Your task to perform on an android device: turn vacation reply on in the gmail app Image 0: 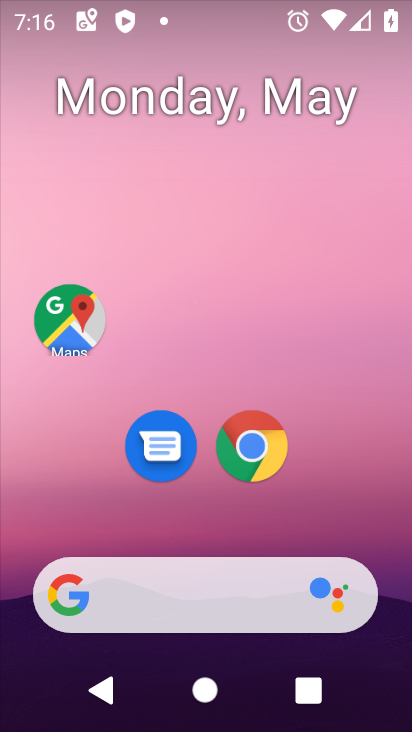
Step 0: drag from (345, 494) to (252, 169)
Your task to perform on an android device: turn vacation reply on in the gmail app Image 1: 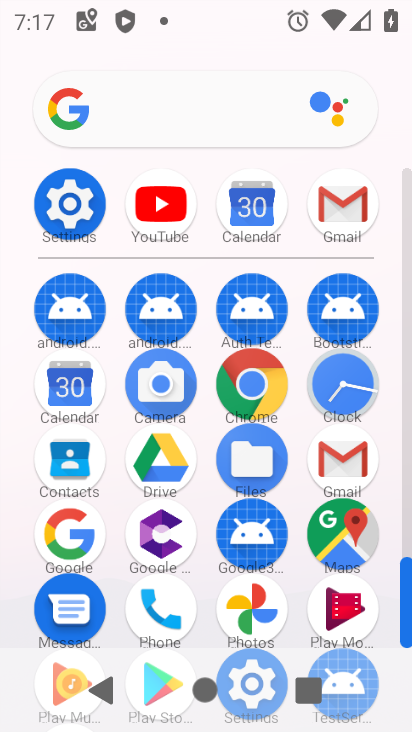
Step 1: click (325, 208)
Your task to perform on an android device: turn vacation reply on in the gmail app Image 2: 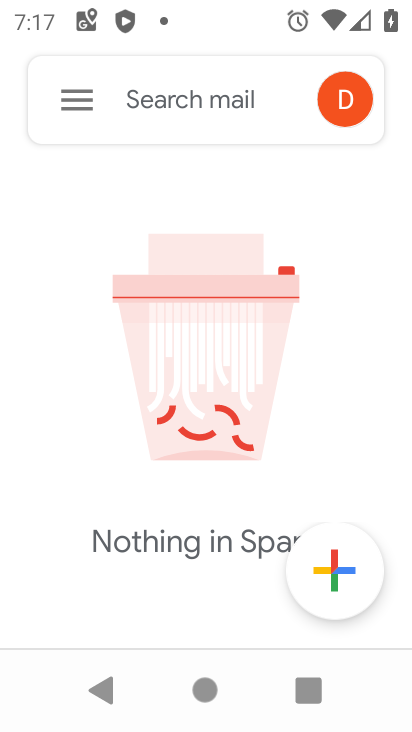
Step 2: click (73, 95)
Your task to perform on an android device: turn vacation reply on in the gmail app Image 3: 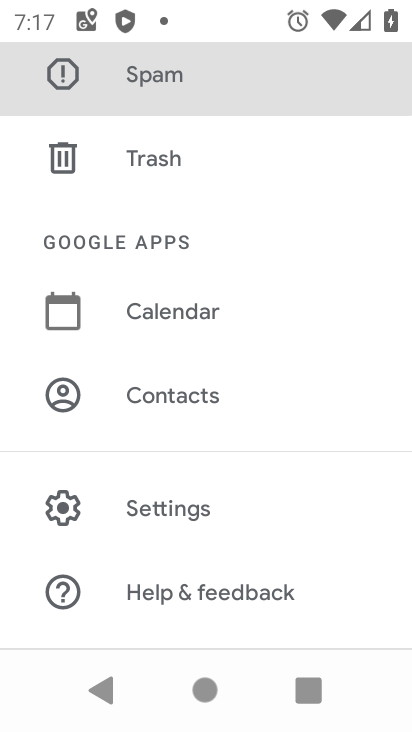
Step 3: click (169, 506)
Your task to perform on an android device: turn vacation reply on in the gmail app Image 4: 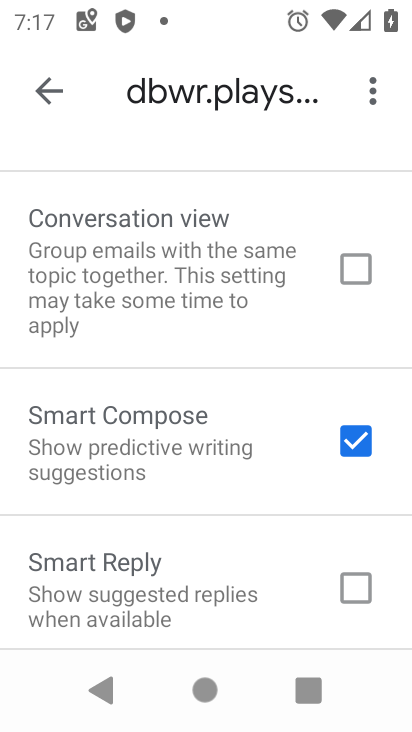
Step 4: drag from (214, 519) to (196, 261)
Your task to perform on an android device: turn vacation reply on in the gmail app Image 5: 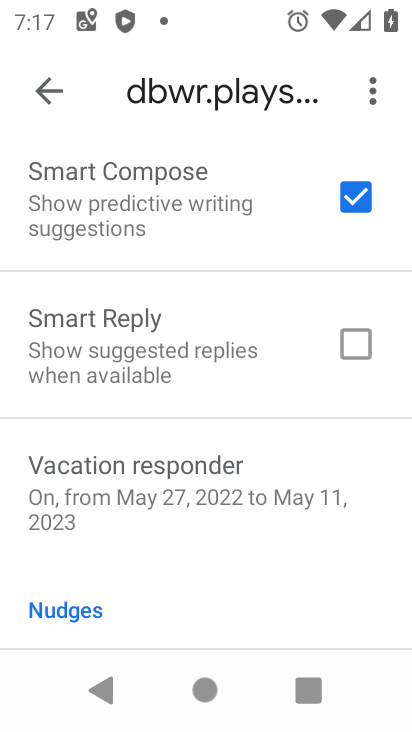
Step 5: drag from (196, 261) to (255, 633)
Your task to perform on an android device: turn vacation reply on in the gmail app Image 6: 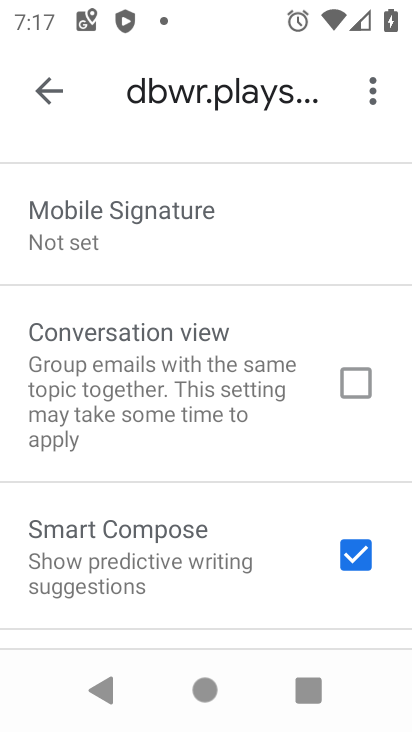
Step 6: drag from (211, 508) to (171, 281)
Your task to perform on an android device: turn vacation reply on in the gmail app Image 7: 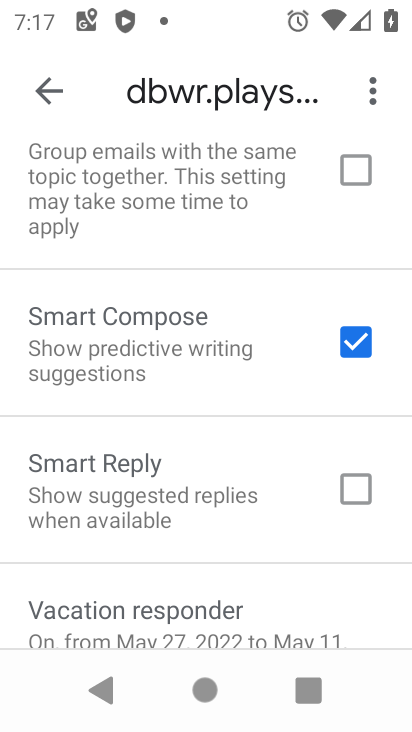
Step 7: click (191, 623)
Your task to perform on an android device: turn vacation reply on in the gmail app Image 8: 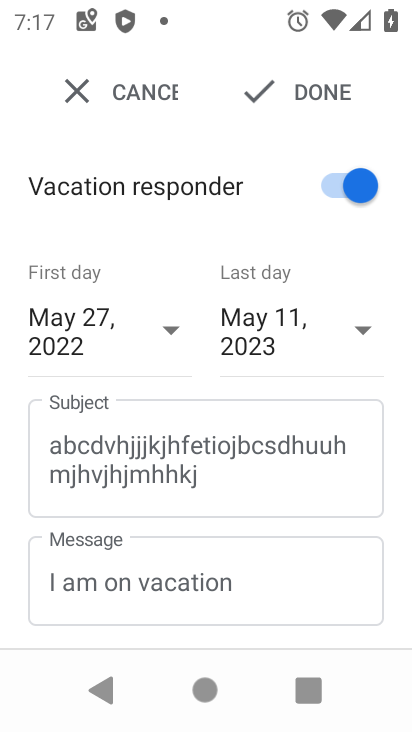
Step 8: task complete